Your task to perform on an android device: Go to Yahoo.com Image 0: 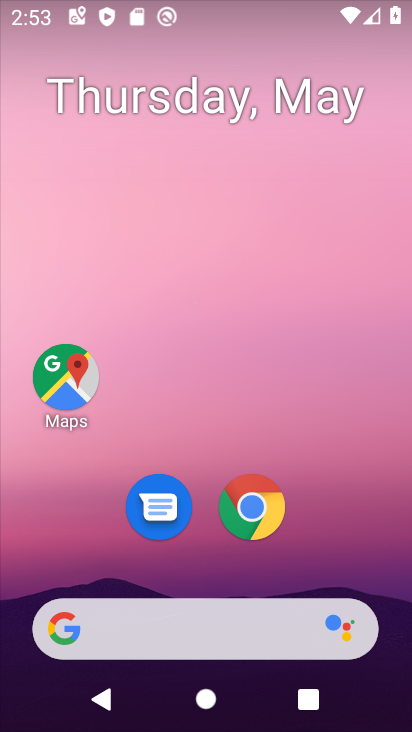
Step 0: click (272, 540)
Your task to perform on an android device: Go to Yahoo.com Image 1: 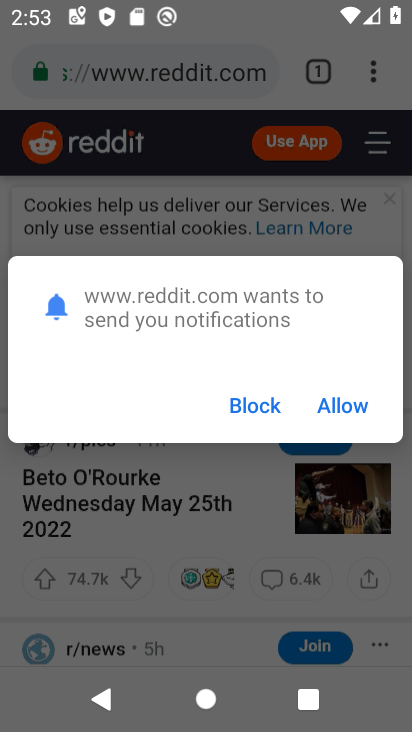
Step 1: click (257, 406)
Your task to perform on an android device: Go to Yahoo.com Image 2: 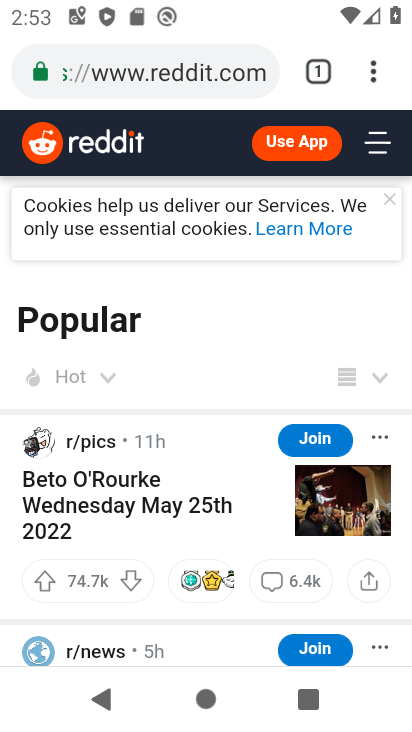
Step 2: click (168, 85)
Your task to perform on an android device: Go to Yahoo.com Image 3: 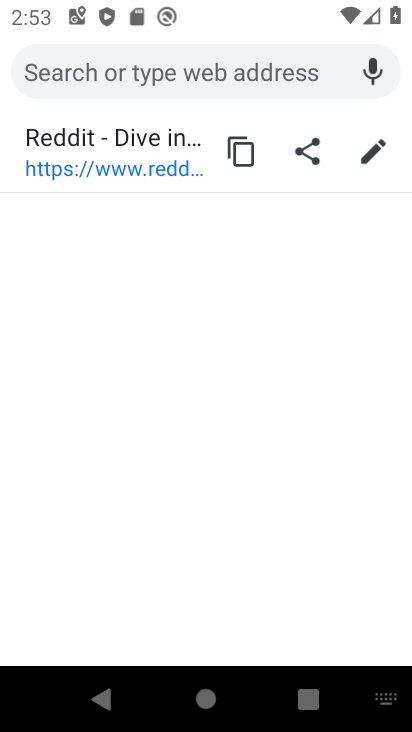
Step 3: type "yahoo.com"
Your task to perform on an android device: Go to Yahoo.com Image 4: 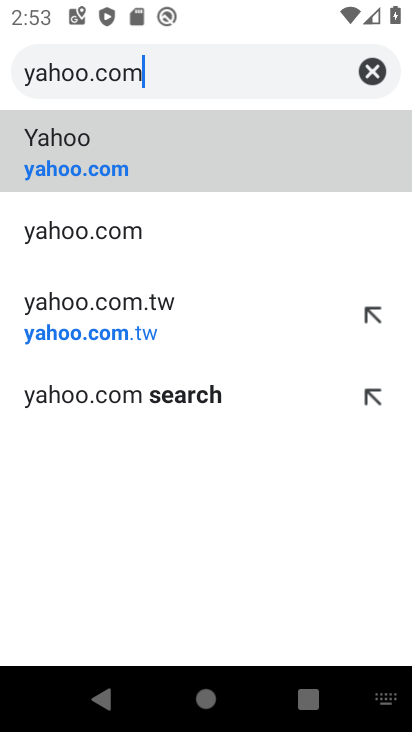
Step 4: click (62, 160)
Your task to perform on an android device: Go to Yahoo.com Image 5: 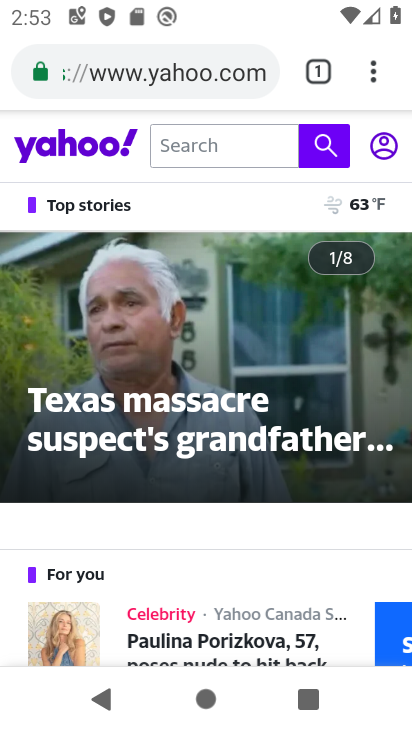
Step 5: task complete